Your task to perform on an android device: turn on sleep mode Image 0: 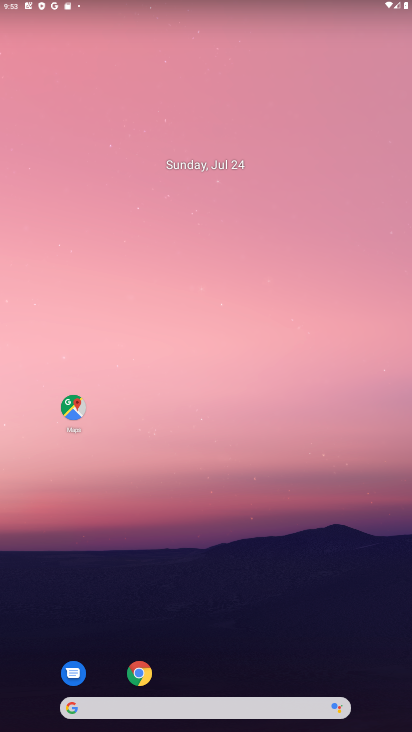
Step 0: drag from (22, 666) to (300, 207)
Your task to perform on an android device: turn on sleep mode Image 1: 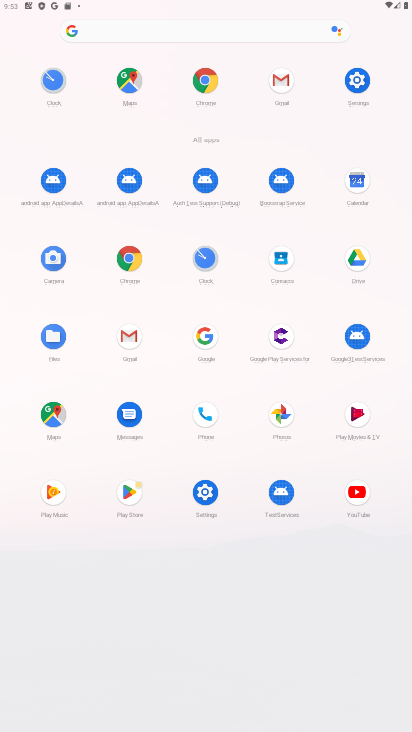
Step 1: click (211, 504)
Your task to perform on an android device: turn on sleep mode Image 2: 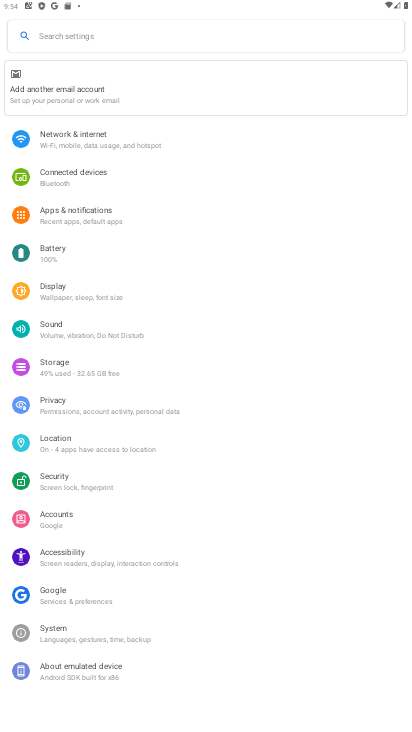
Step 2: task complete